Your task to perform on an android device: change alarm snooze length Image 0: 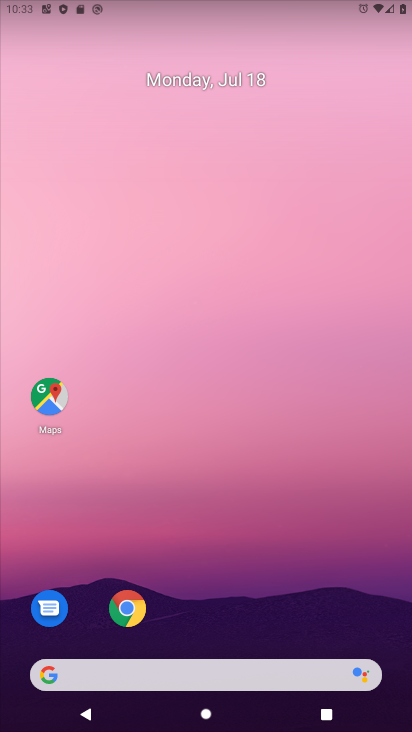
Step 0: drag from (110, 599) to (202, 171)
Your task to perform on an android device: change alarm snooze length Image 1: 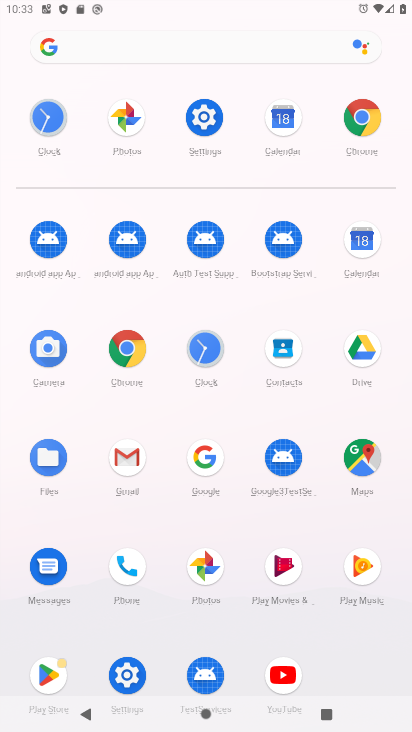
Step 1: click (215, 358)
Your task to perform on an android device: change alarm snooze length Image 2: 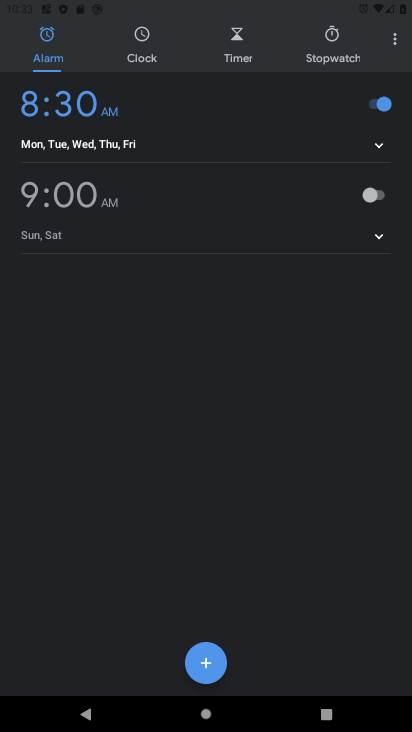
Step 2: click (395, 34)
Your task to perform on an android device: change alarm snooze length Image 3: 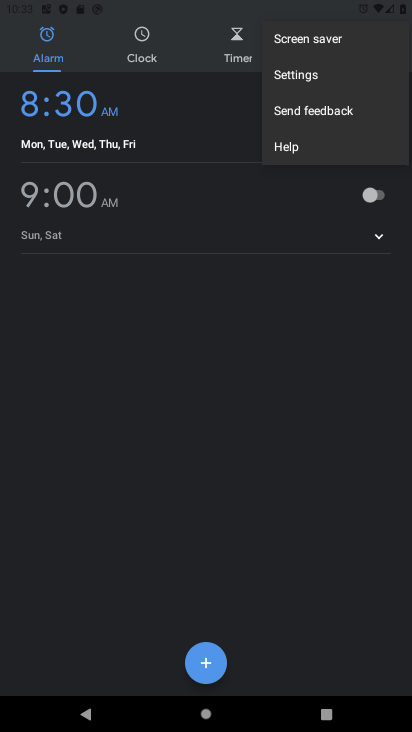
Step 3: click (292, 78)
Your task to perform on an android device: change alarm snooze length Image 4: 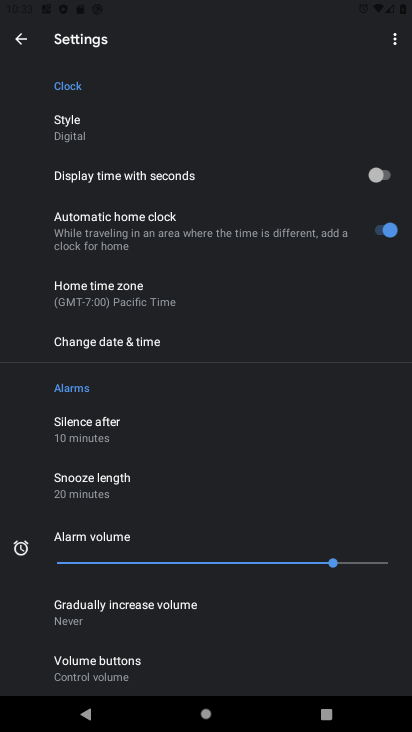
Step 4: click (82, 493)
Your task to perform on an android device: change alarm snooze length Image 5: 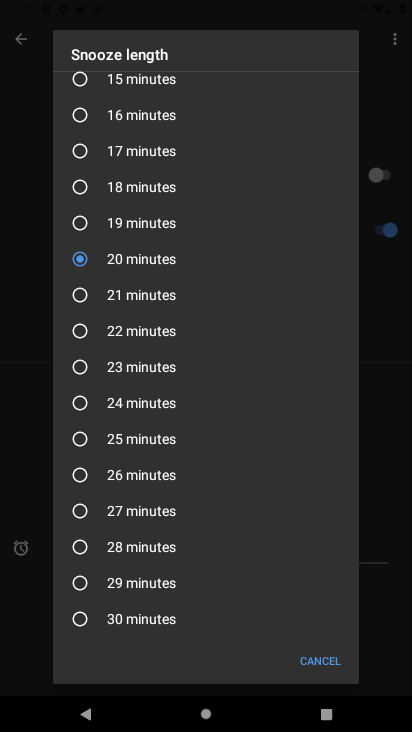
Step 5: click (76, 183)
Your task to perform on an android device: change alarm snooze length Image 6: 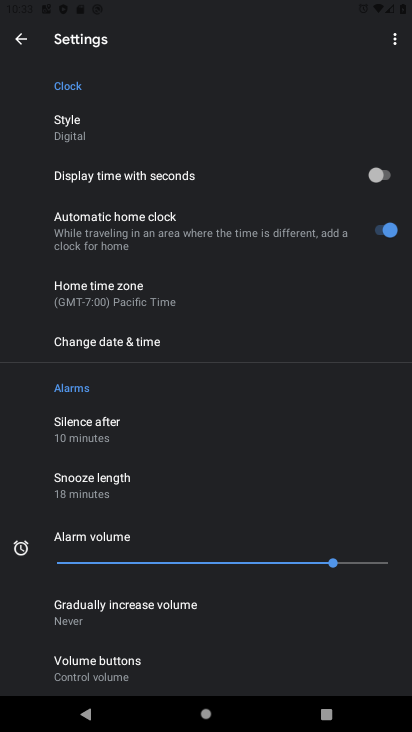
Step 6: task complete